Your task to perform on an android device: Search for Mexican restaurants on Maps Image 0: 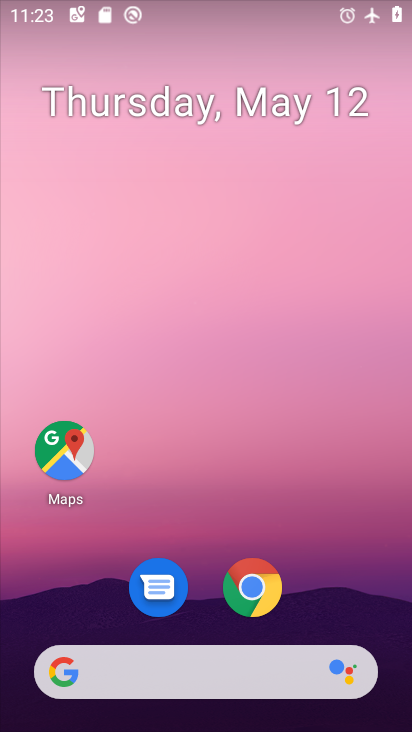
Step 0: drag from (385, 598) to (291, 85)
Your task to perform on an android device: Search for Mexican restaurants on Maps Image 1: 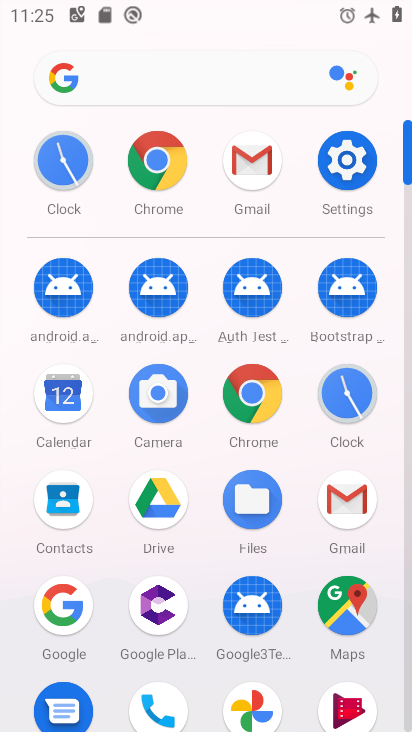
Step 1: click (344, 628)
Your task to perform on an android device: Search for Mexican restaurants on Maps Image 2: 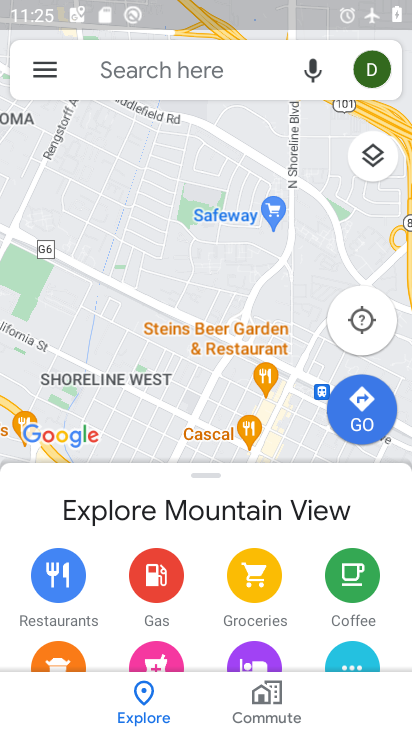
Step 2: click (139, 70)
Your task to perform on an android device: Search for Mexican restaurants on Maps Image 3: 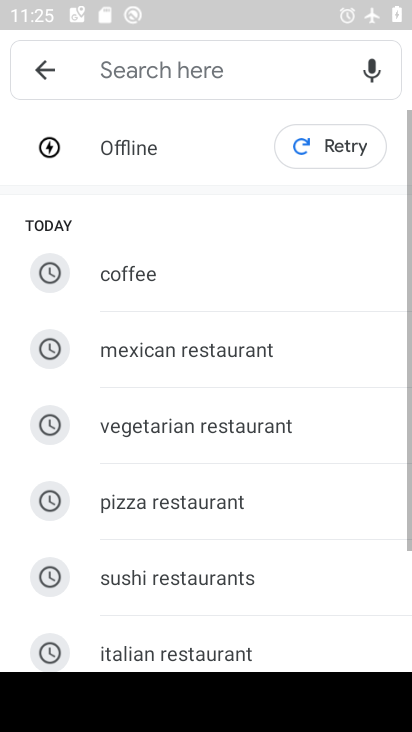
Step 3: click (227, 364)
Your task to perform on an android device: Search for Mexican restaurants on Maps Image 4: 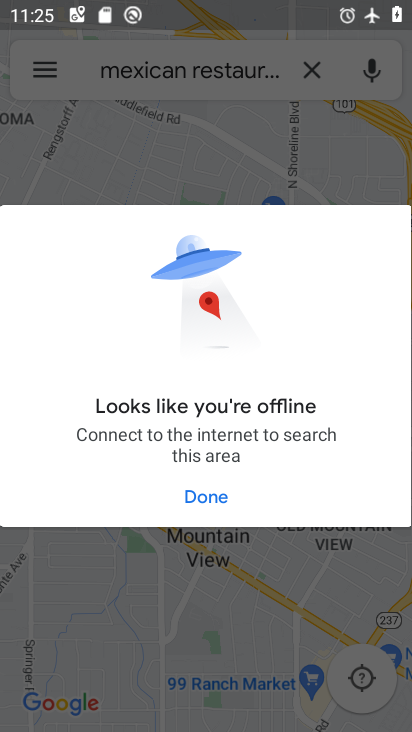
Step 4: task complete